Your task to perform on an android device: See recent photos Image 0: 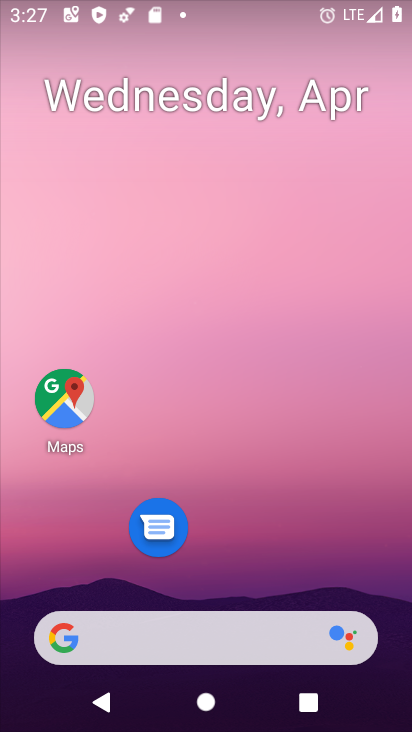
Step 0: drag from (202, 341) to (239, 49)
Your task to perform on an android device: See recent photos Image 1: 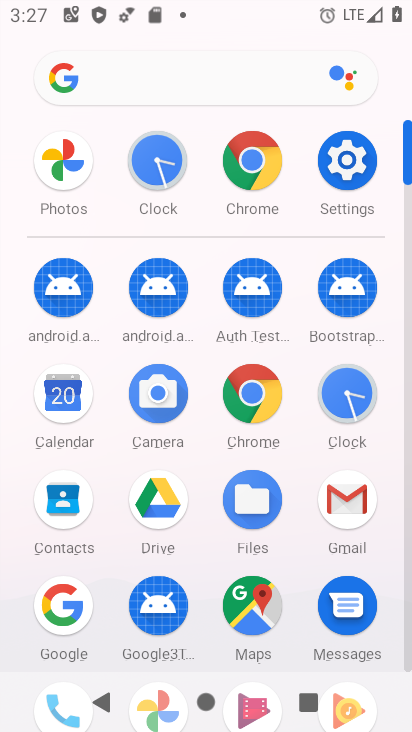
Step 1: click (77, 158)
Your task to perform on an android device: See recent photos Image 2: 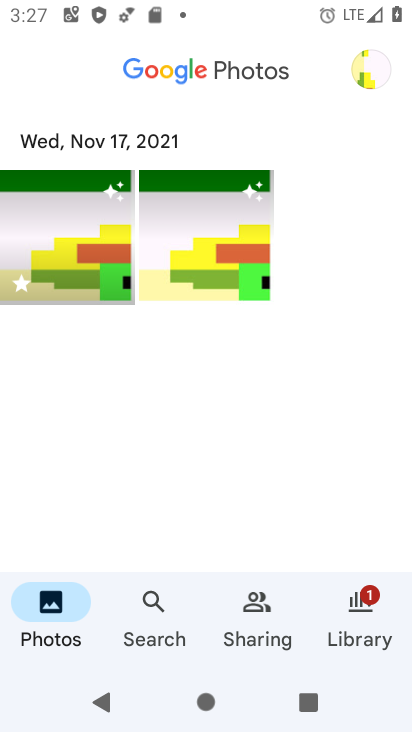
Step 2: task complete